Your task to perform on an android device: Go to Google Image 0: 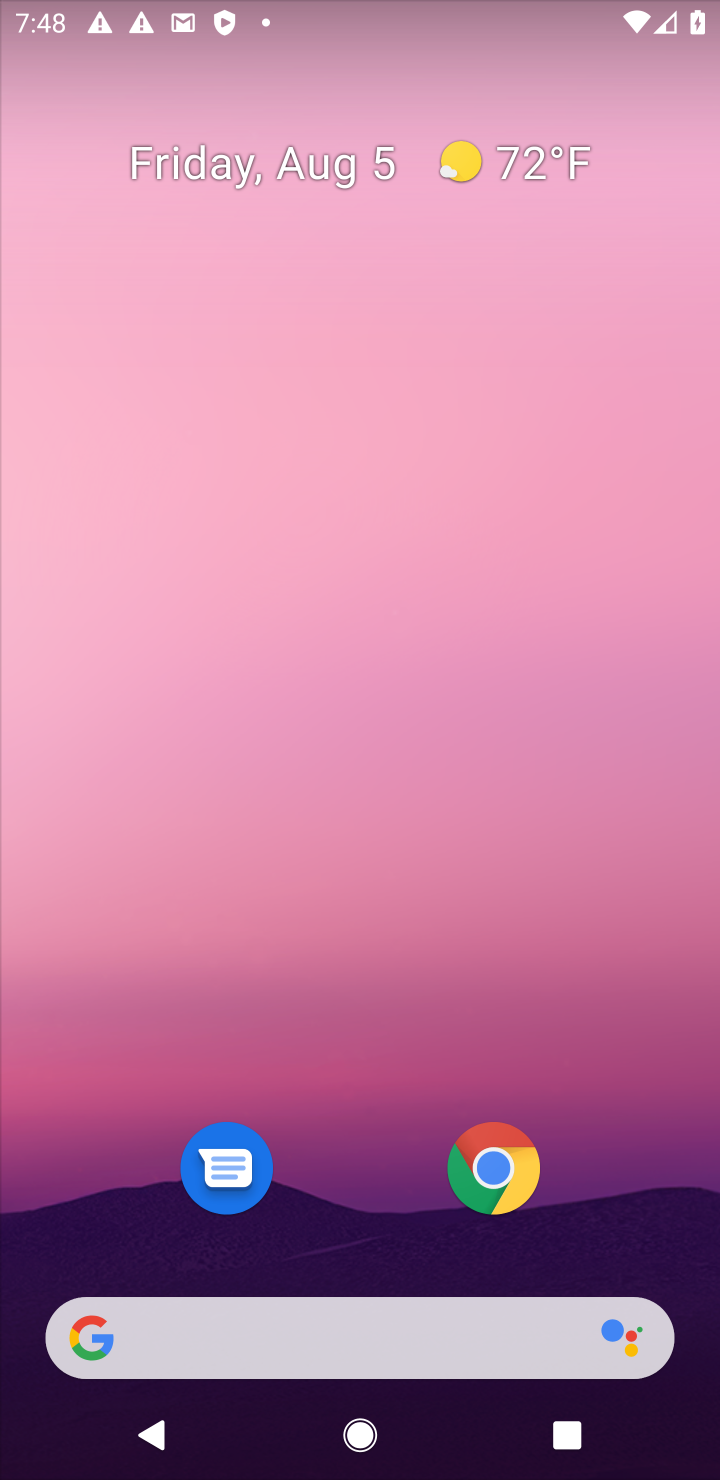
Step 0: drag from (459, 692) to (465, 195)
Your task to perform on an android device: Go to Google Image 1: 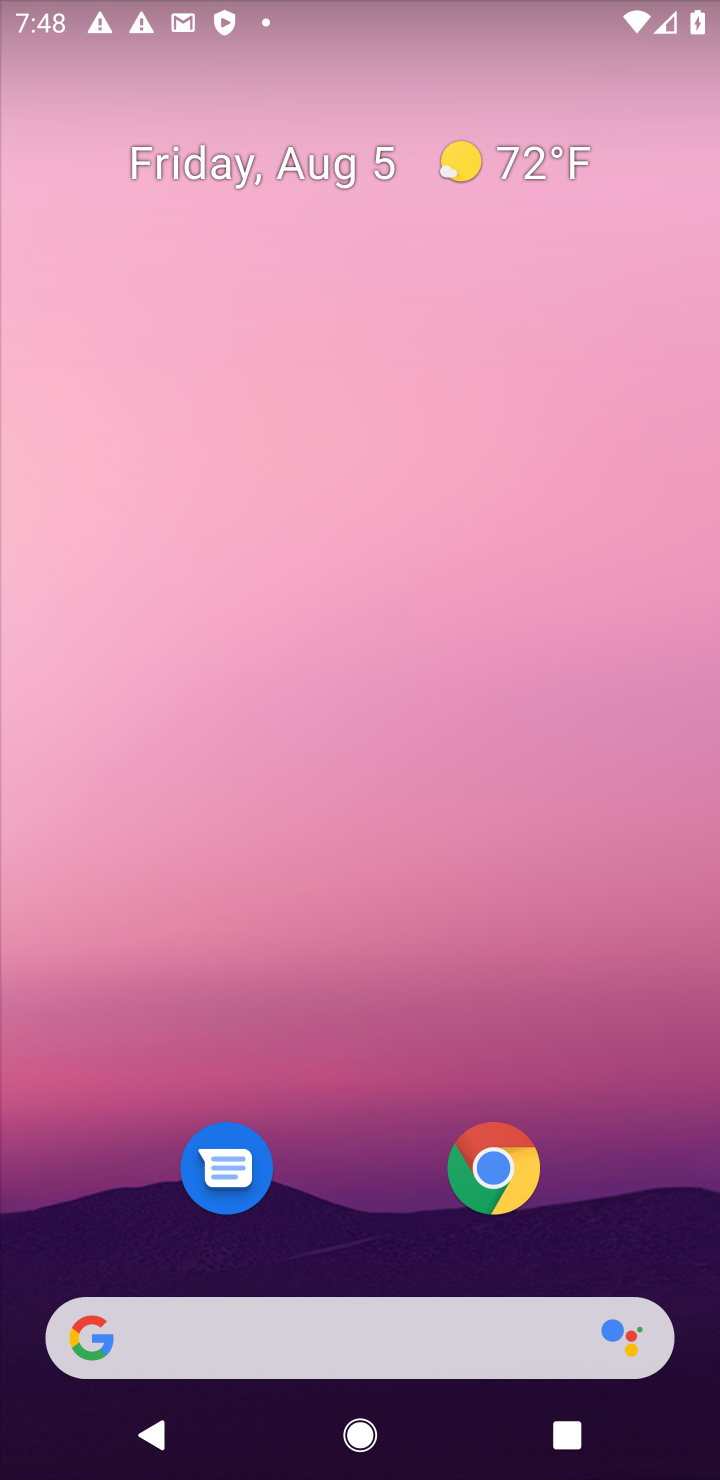
Step 1: drag from (397, 1133) to (409, 130)
Your task to perform on an android device: Go to Google Image 2: 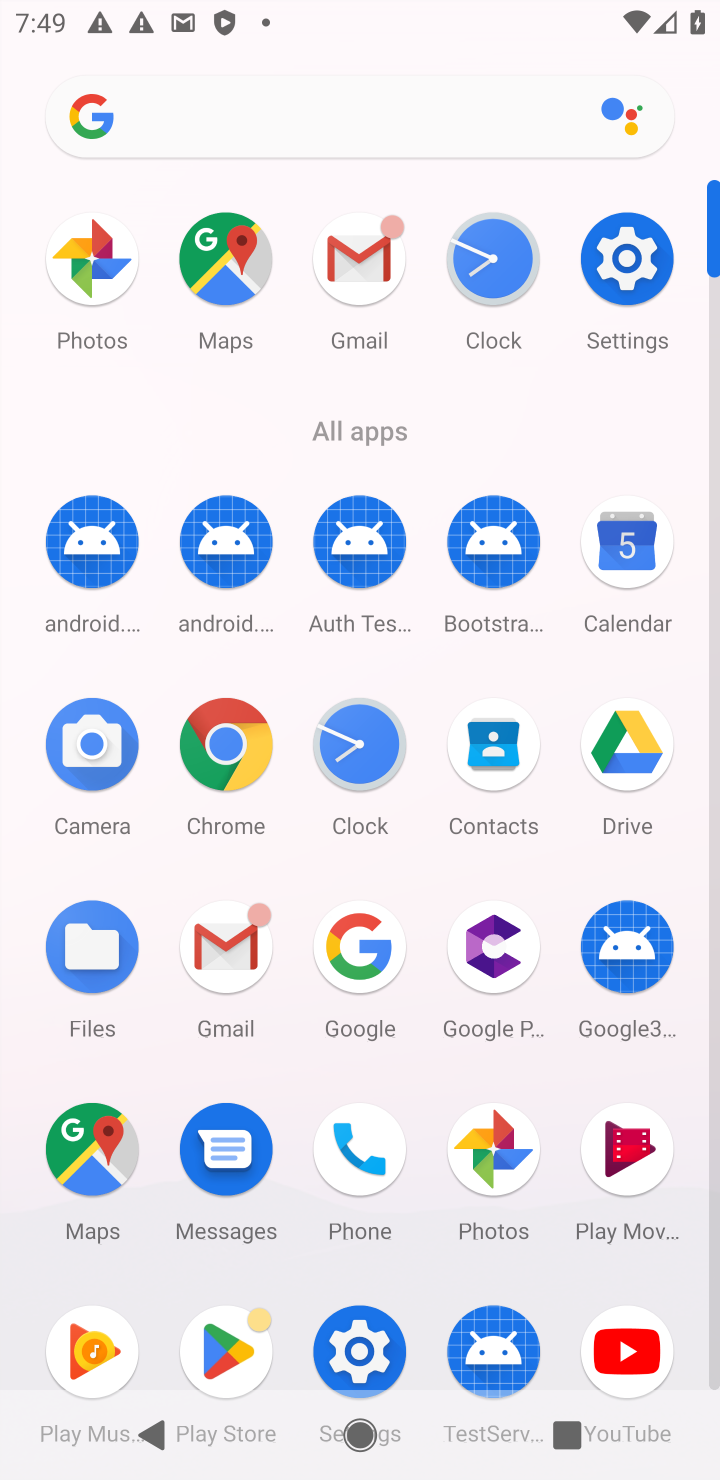
Step 2: click (361, 944)
Your task to perform on an android device: Go to Google Image 3: 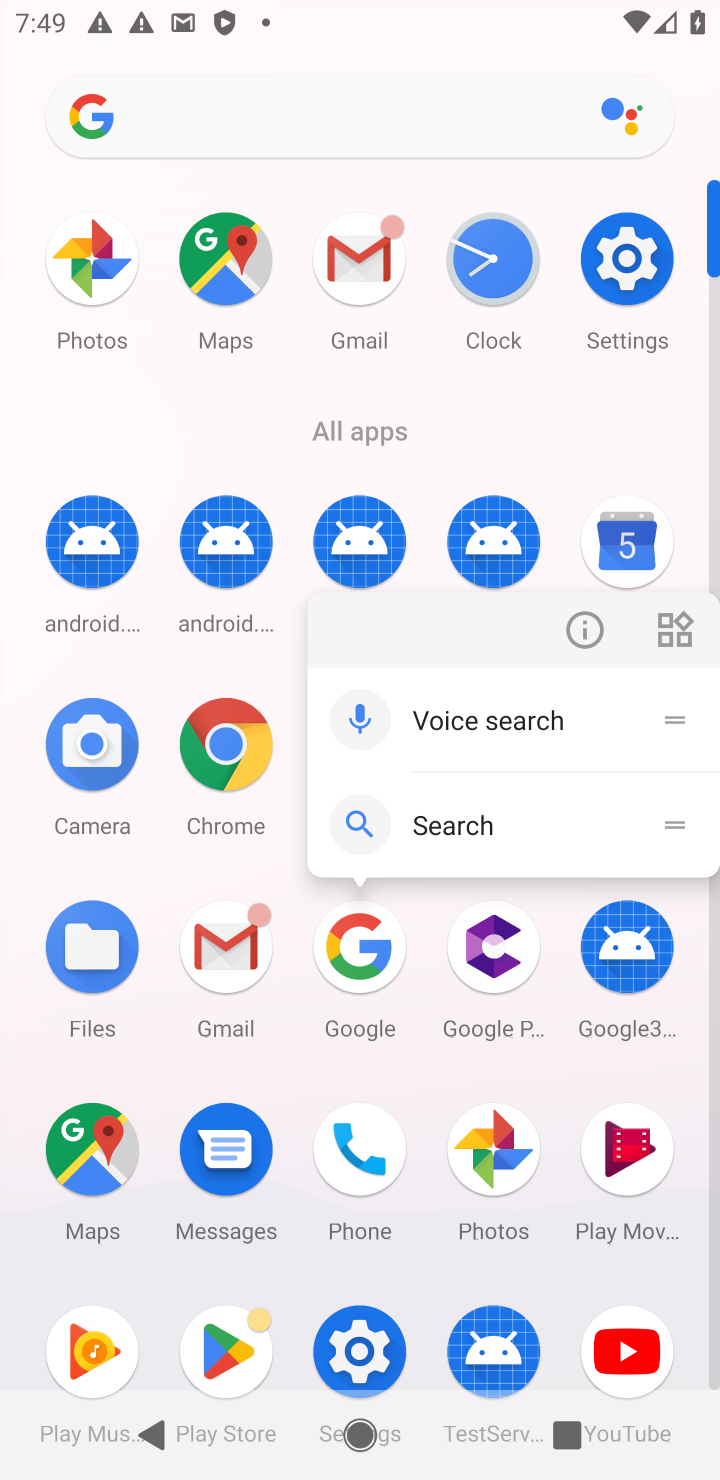
Step 3: click (373, 977)
Your task to perform on an android device: Go to Google Image 4: 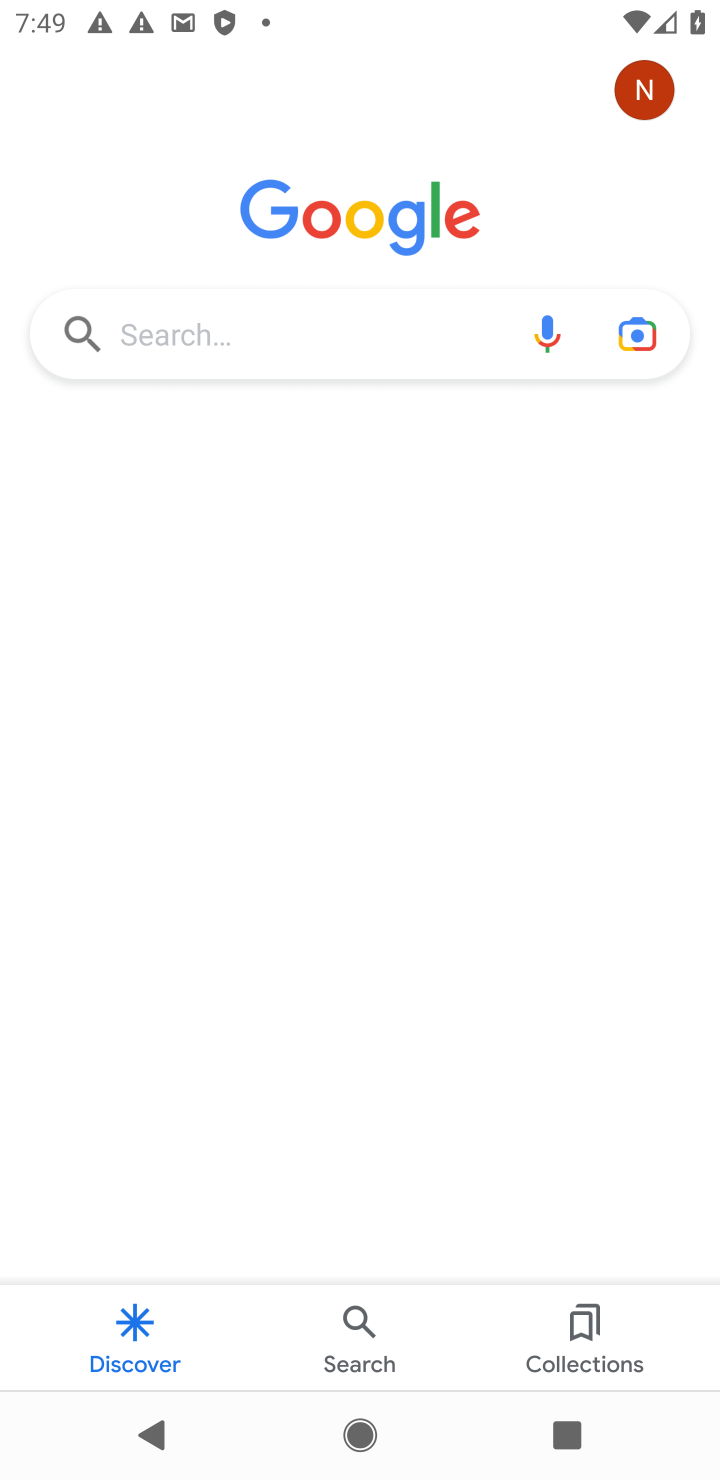
Step 4: task complete